Your task to perform on an android device: Go to Google maps Image 0: 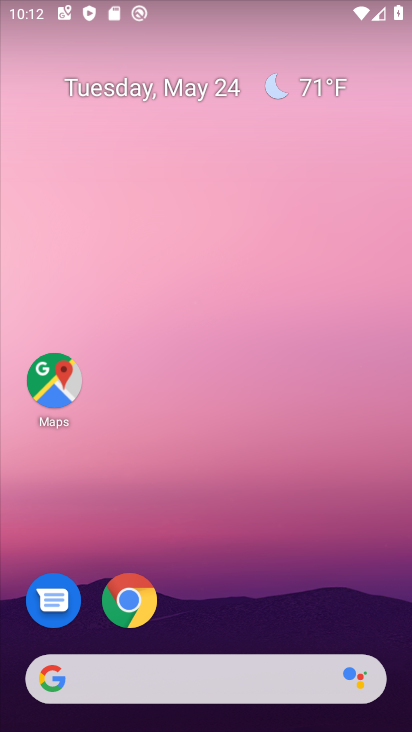
Step 0: click (46, 390)
Your task to perform on an android device: Go to Google maps Image 1: 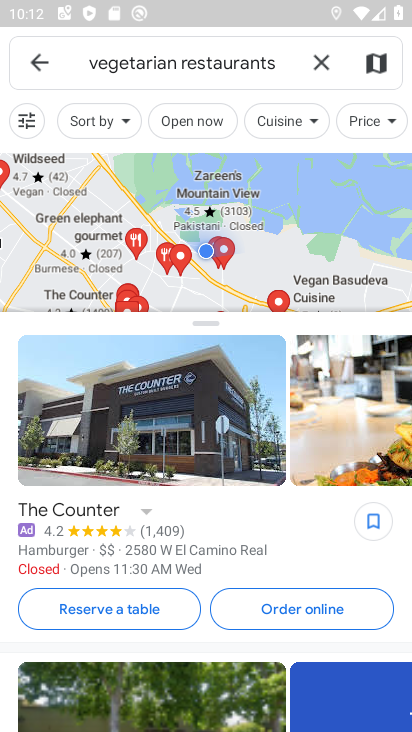
Step 1: task complete